Your task to perform on an android device: toggle wifi Image 0: 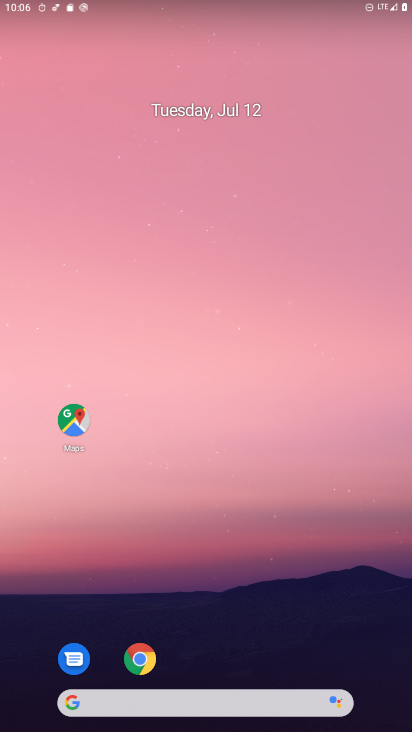
Step 0: drag from (223, 711) to (235, 61)
Your task to perform on an android device: toggle wifi Image 1: 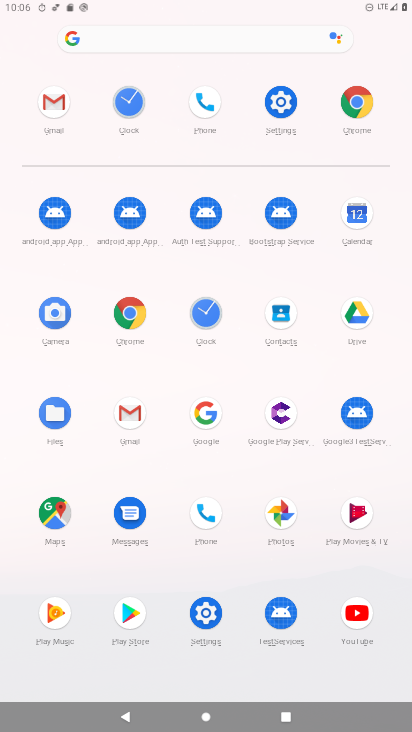
Step 1: click (279, 101)
Your task to perform on an android device: toggle wifi Image 2: 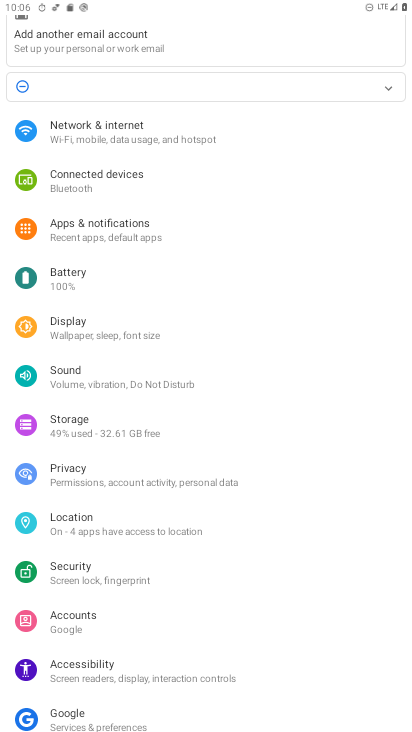
Step 2: click (85, 139)
Your task to perform on an android device: toggle wifi Image 3: 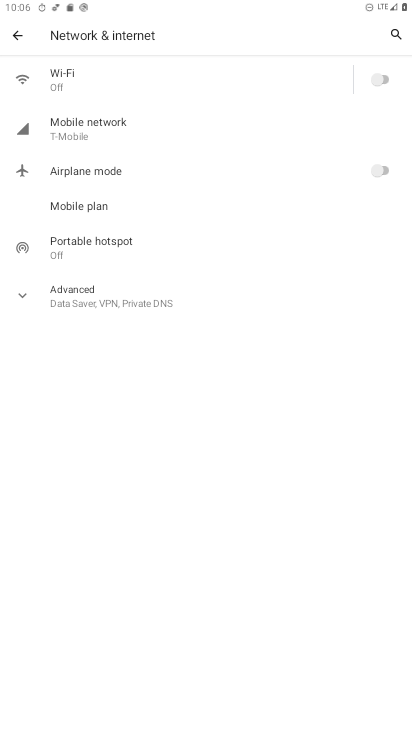
Step 3: click (388, 76)
Your task to perform on an android device: toggle wifi Image 4: 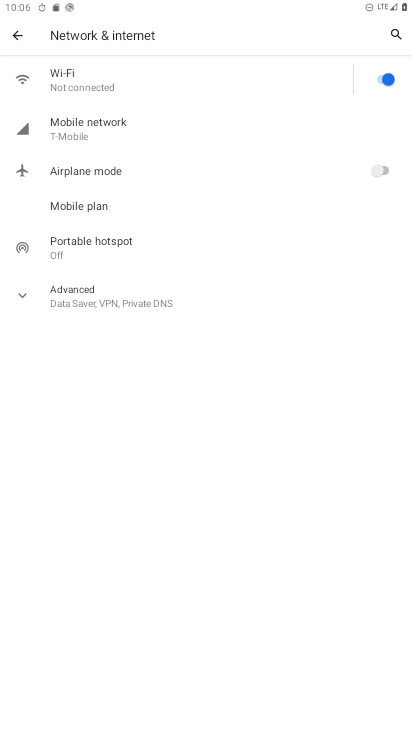
Step 4: task complete